Your task to perform on an android device: stop showing notifications on the lock screen Image 0: 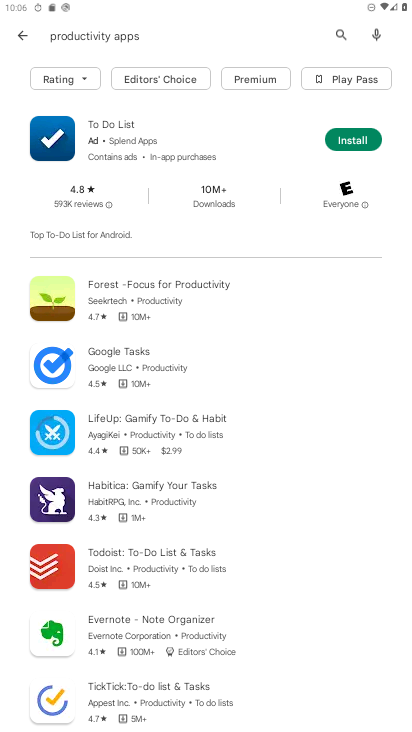
Step 0: press home button
Your task to perform on an android device: stop showing notifications on the lock screen Image 1: 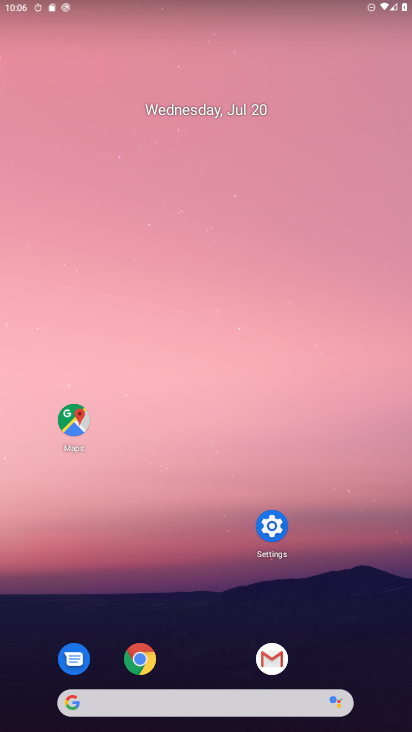
Step 1: click (276, 544)
Your task to perform on an android device: stop showing notifications on the lock screen Image 2: 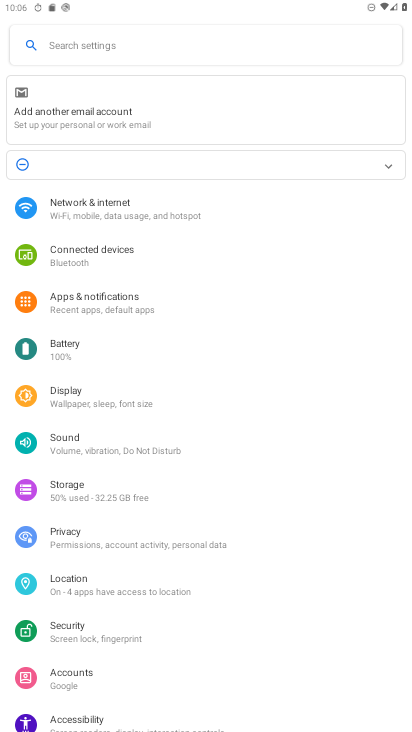
Step 2: click (93, 42)
Your task to perform on an android device: stop showing notifications on the lock screen Image 3: 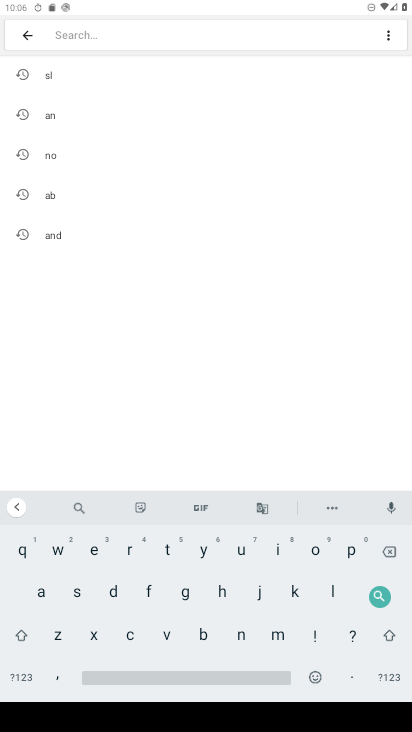
Step 3: click (68, 156)
Your task to perform on an android device: stop showing notifications on the lock screen Image 4: 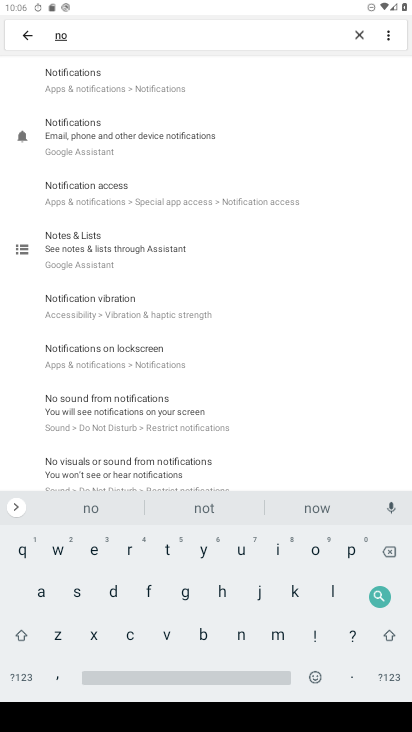
Step 4: click (99, 79)
Your task to perform on an android device: stop showing notifications on the lock screen Image 5: 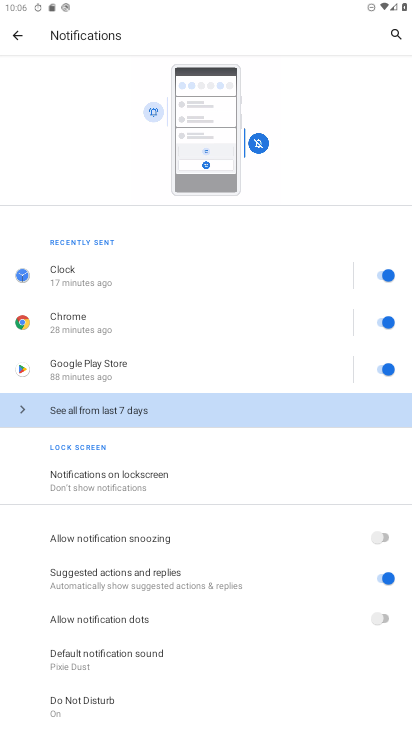
Step 5: click (109, 482)
Your task to perform on an android device: stop showing notifications on the lock screen Image 6: 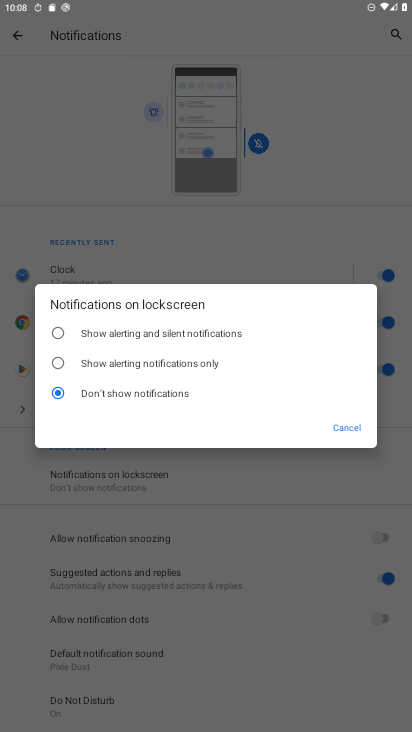
Step 6: task complete